Your task to perform on an android device: Do I have any events tomorrow? Image 0: 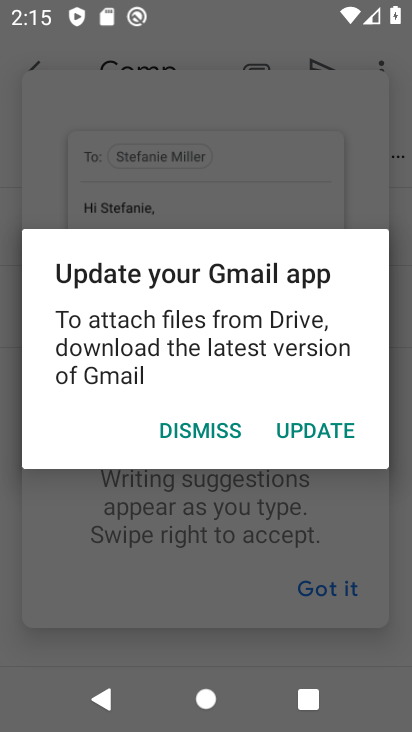
Step 0: click (314, 432)
Your task to perform on an android device: Do I have any events tomorrow? Image 1: 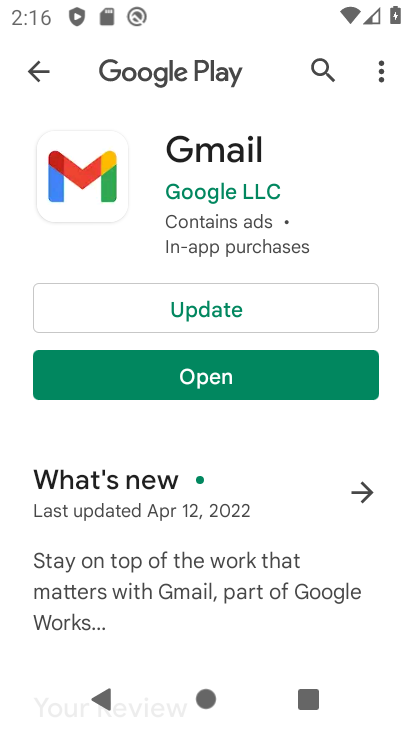
Step 1: click (262, 301)
Your task to perform on an android device: Do I have any events tomorrow? Image 2: 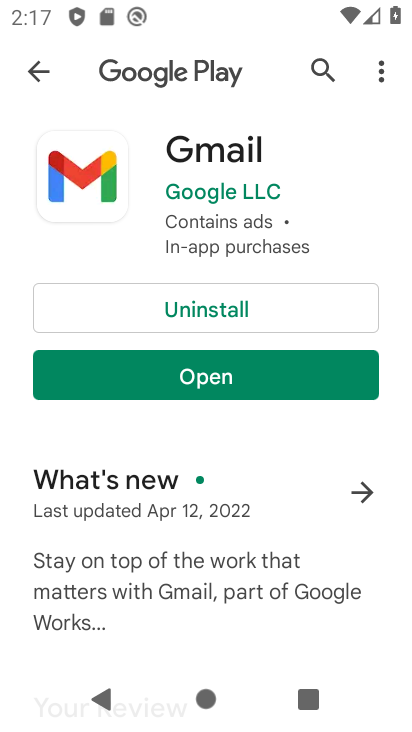
Step 2: press home button
Your task to perform on an android device: Do I have any events tomorrow? Image 3: 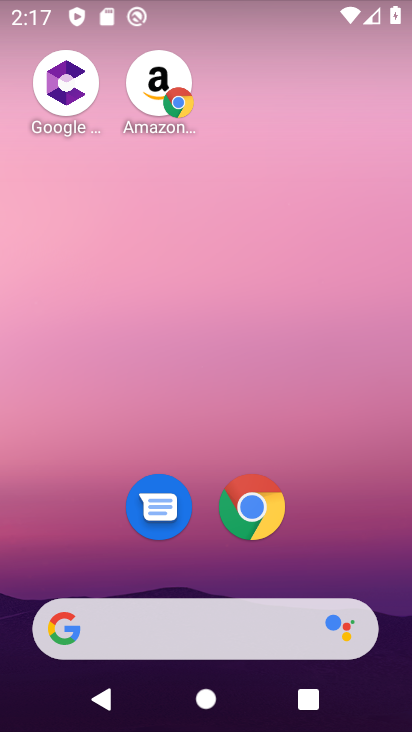
Step 3: drag from (240, 502) to (293, 118)
Your task to perform on an android device: Do I have any events tomorrow? Image 4: 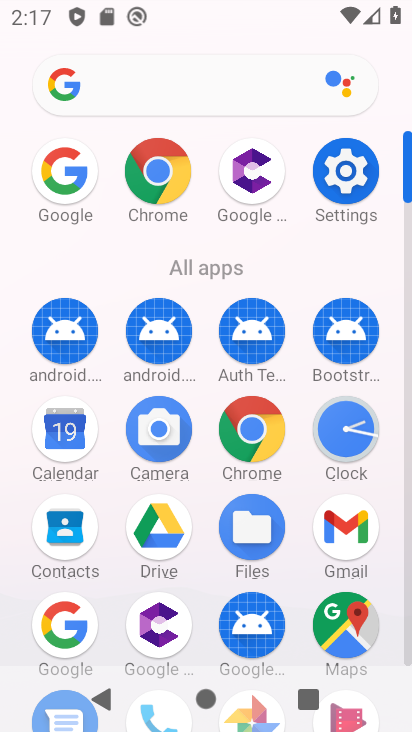
Step 4: click (74, 431)
Your task to perform on an android device: Do I have any events tomorrow? Image 5: 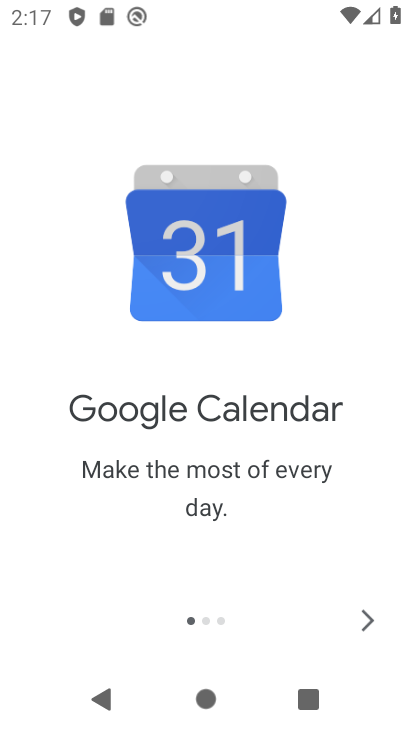
Step 5: click (367, 607)
Your task to perform on an android device: Do I have any events tomorrow? Image 6: 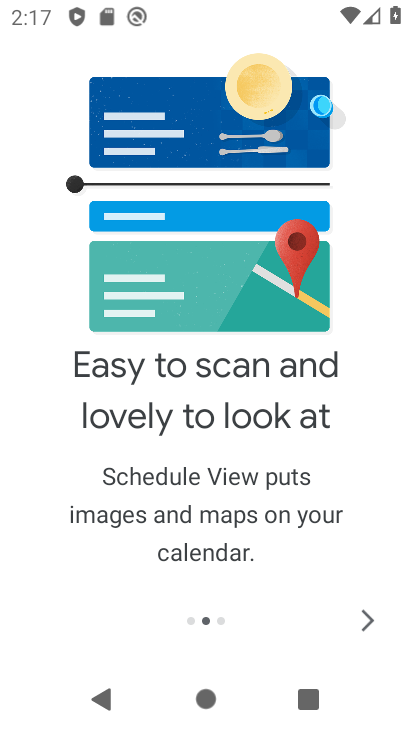
Step 6: click (370, 616)
Your task to perform on an android device: Do I have any events tomorrow? Image 7: 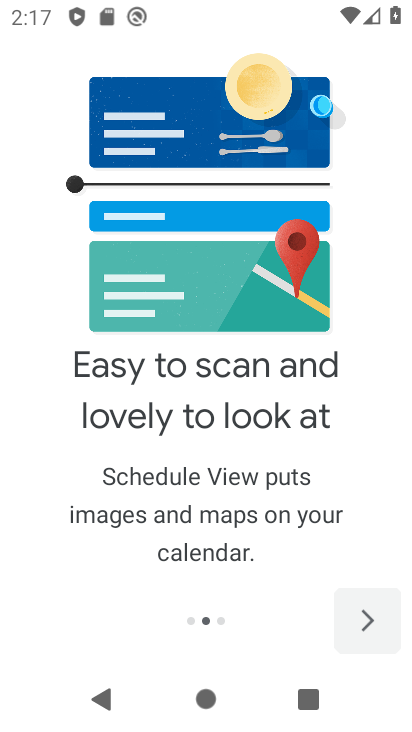
Step 7: click (370, 616)
Your task to perform on an android device: Do I have any events tomorrow? Image 8: 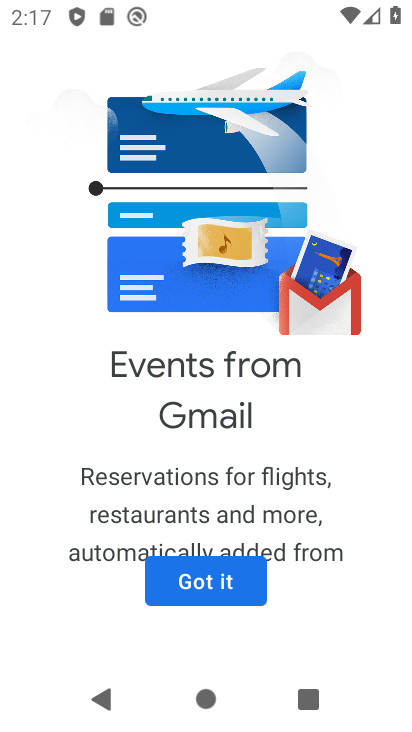
Step 8: click (250, 584)
Your task to perform on an android device: Do I have any events tomorrow? Image 9: 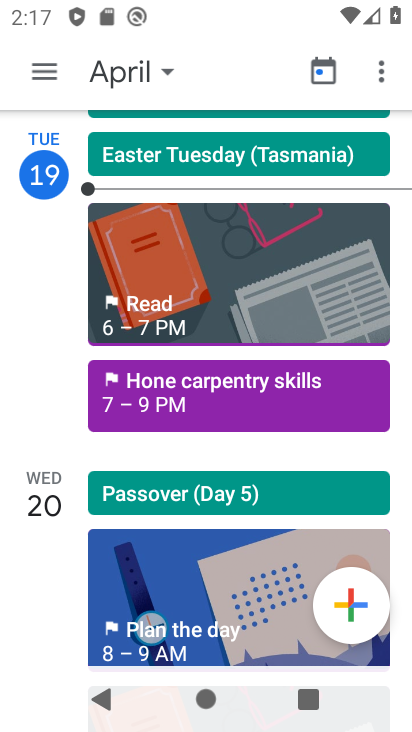
Step 9: task complete